Your task to perform on an android device: Open Chrome and go to the settings page Image 0: 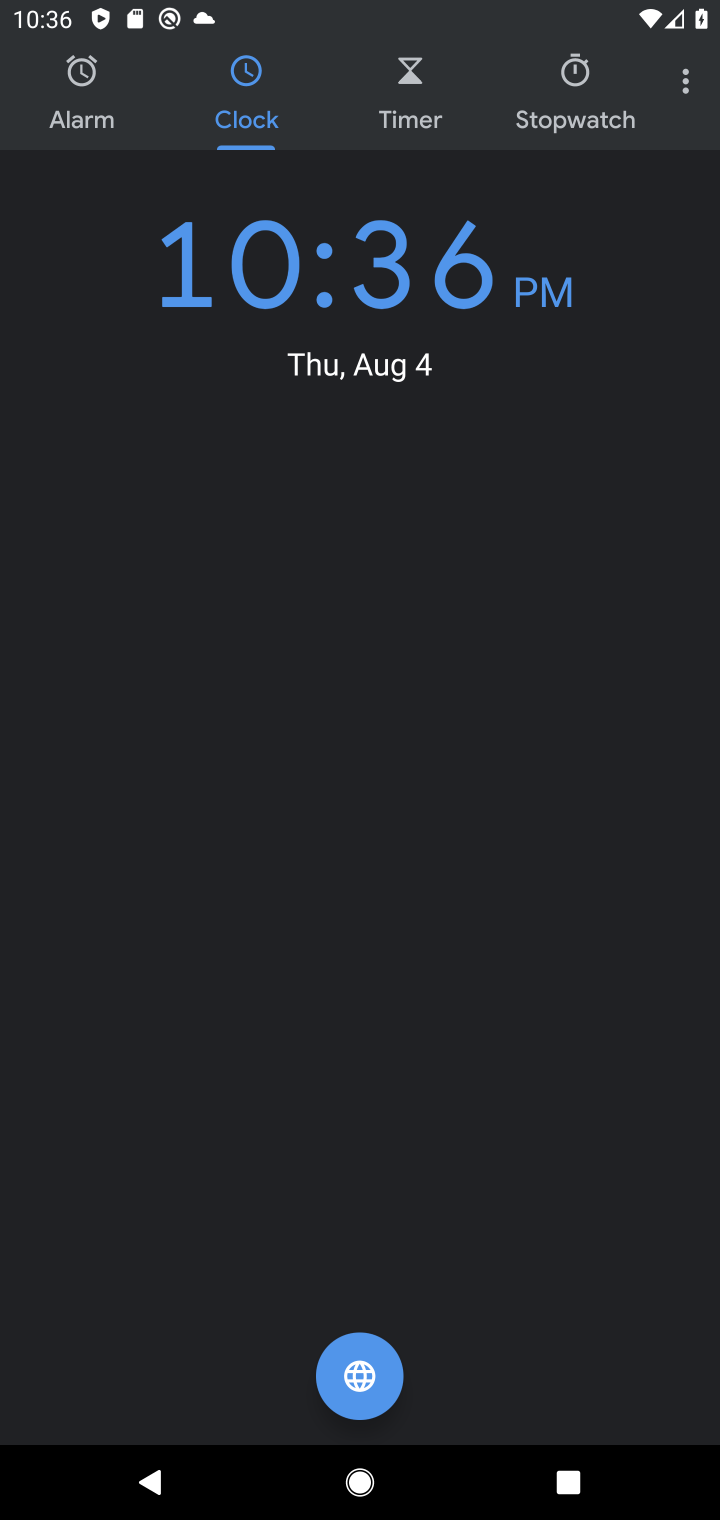
Step 0: press back button
Your task to perform on an android device: Open Chrome and go to the settings page Image 1: 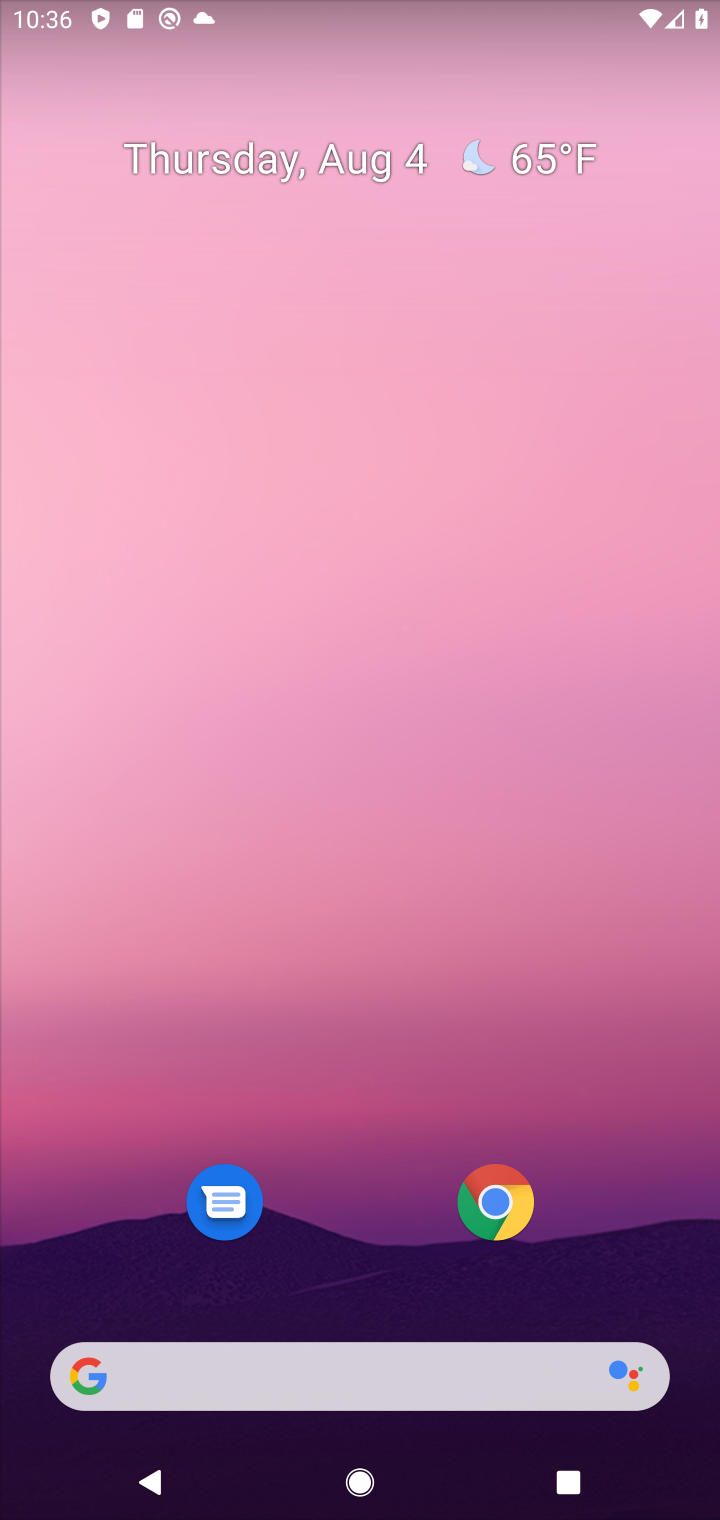
Step 1: drag from (375, 930) to (497, 153)
Your task to perform on an android device: Open Chrome and go to the settings page Image 2: 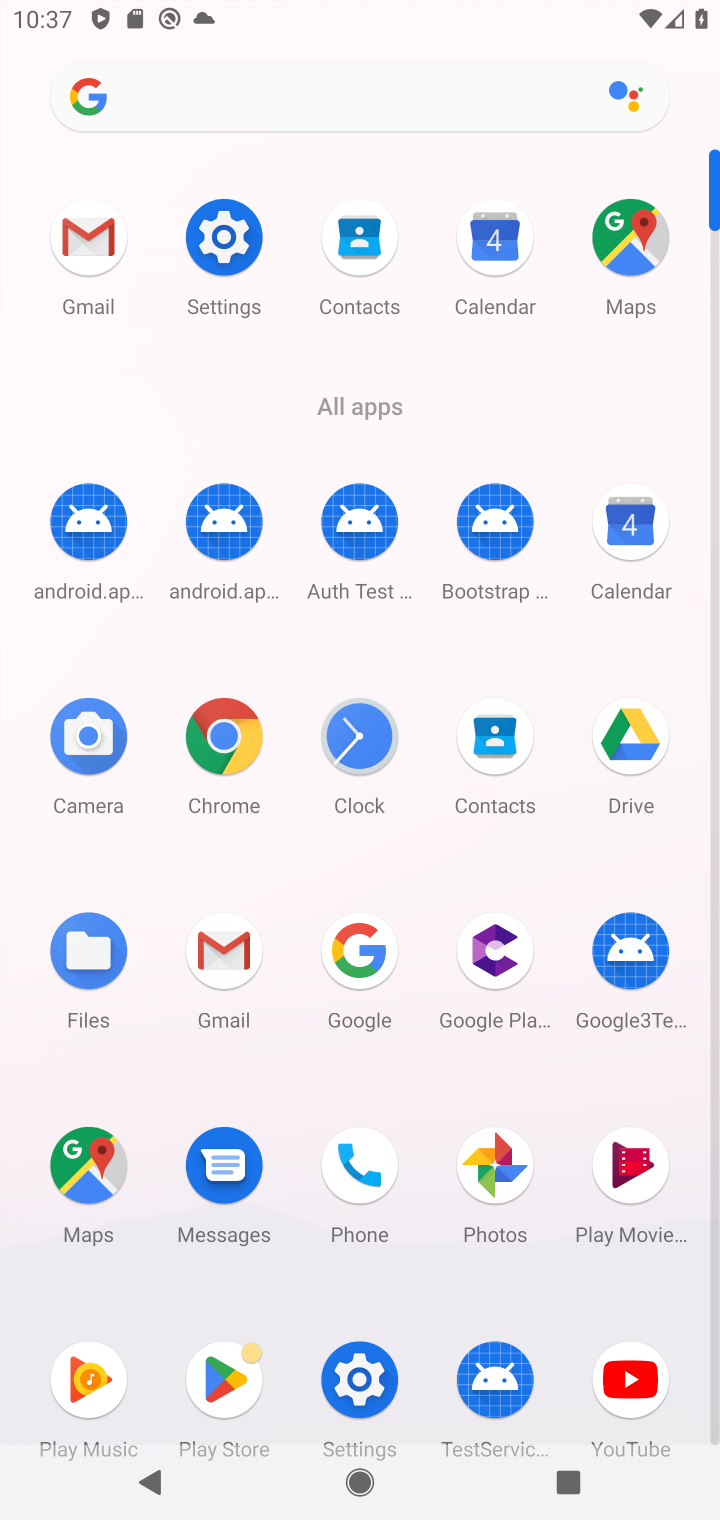
Step 2: click (235, 743)
Your task to perform on an android device: Open Chrome and go to the settings page Image 3: 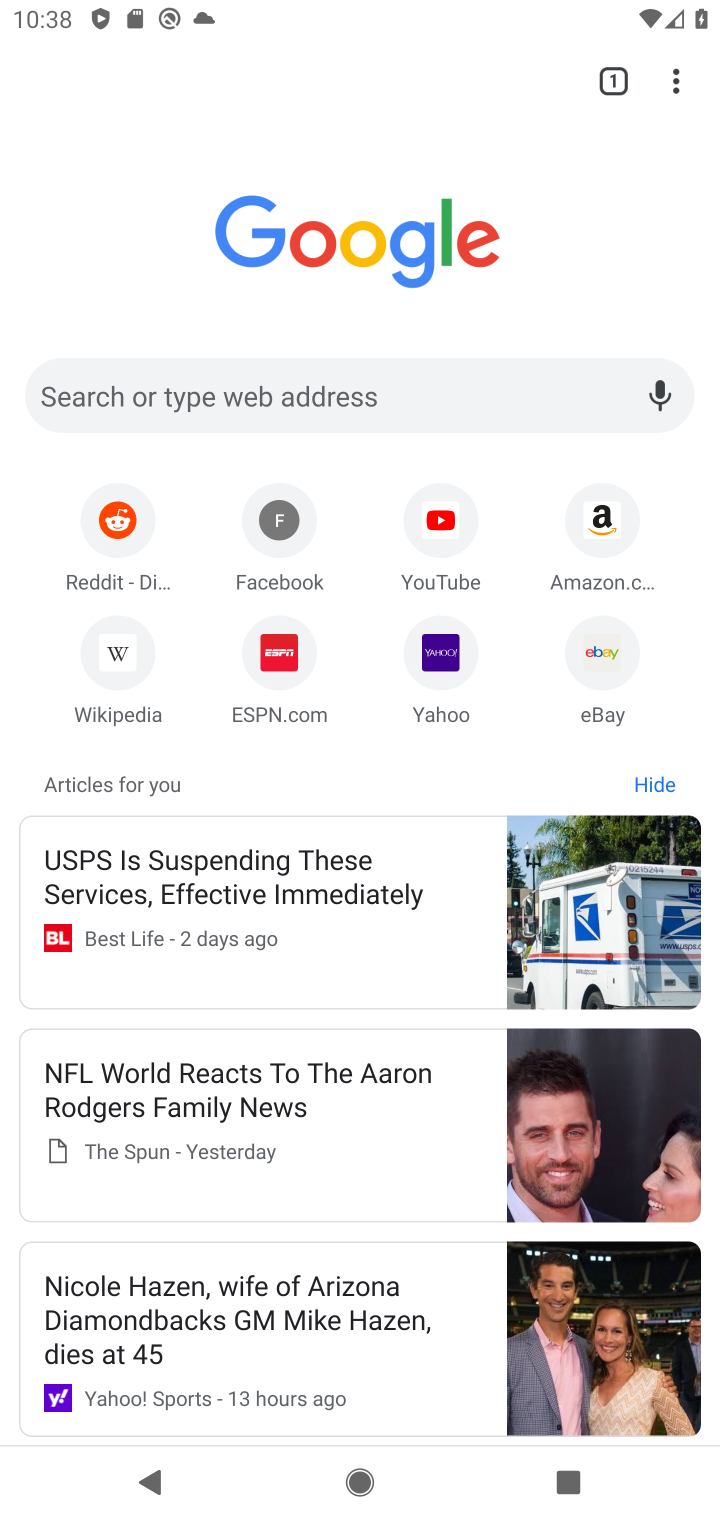
Step 3: task complete